Your task to perform on an android device: Open the phone app and click the voicemail tab. Image 0: 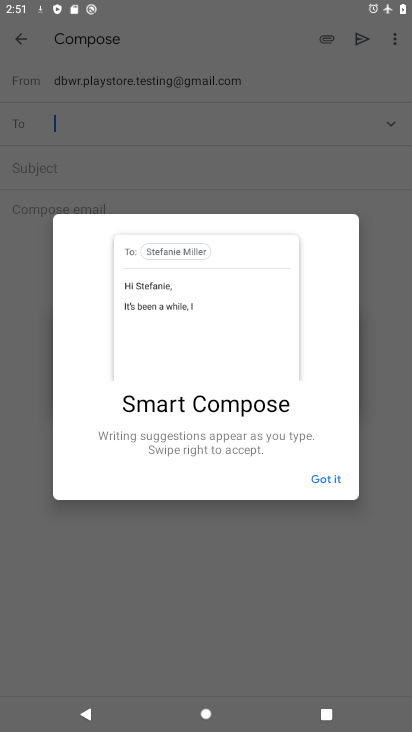
Step 0: press home button
Your task to perform on an android device: Open the phone app and click the voicemail tab. Image 1: 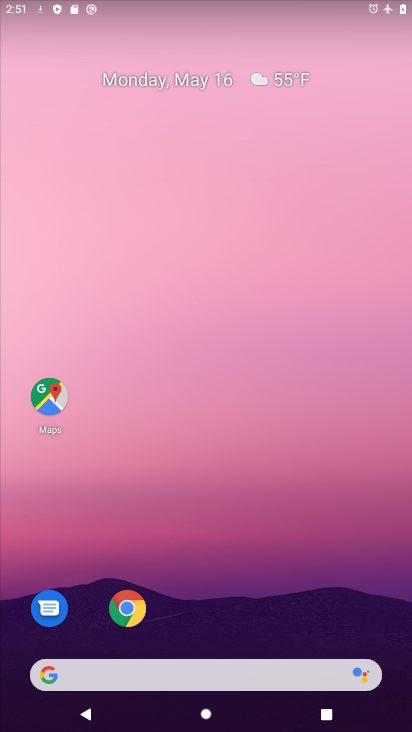
Step 1: drag from (220, 619) to (224, 160)
Your task to perform on an android device: Open the phone app and click the voicemail tab. Image 2: 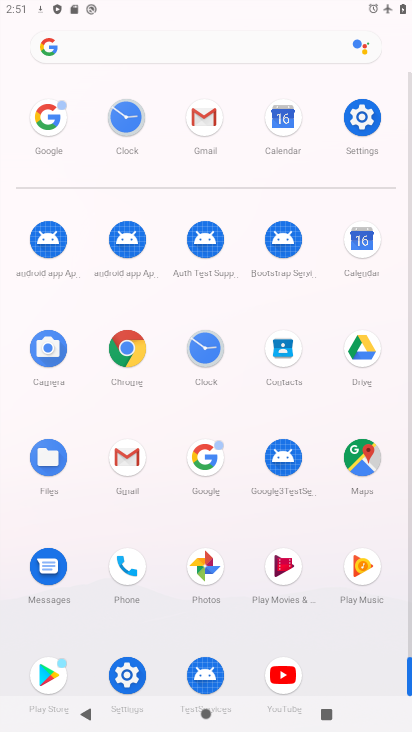
Step 2: click (136, 567)
Your task to perform on an android device: Open the phone app and click the voicemail tab. Image 3: 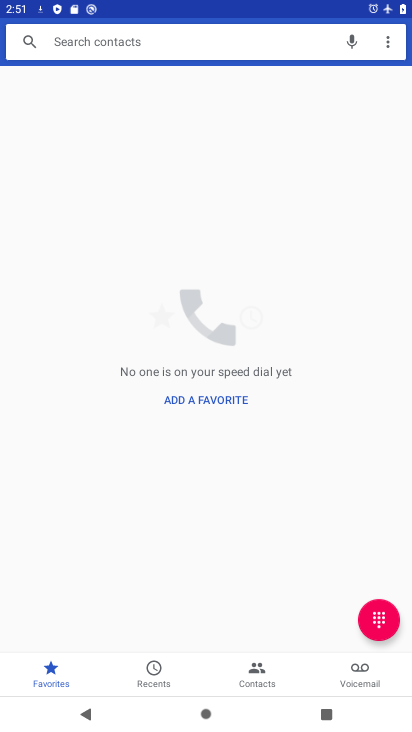
Step 3: click (354, 684)
Your task to perform on an android device: Open the phone app and click the voicemail tab. Image 4: 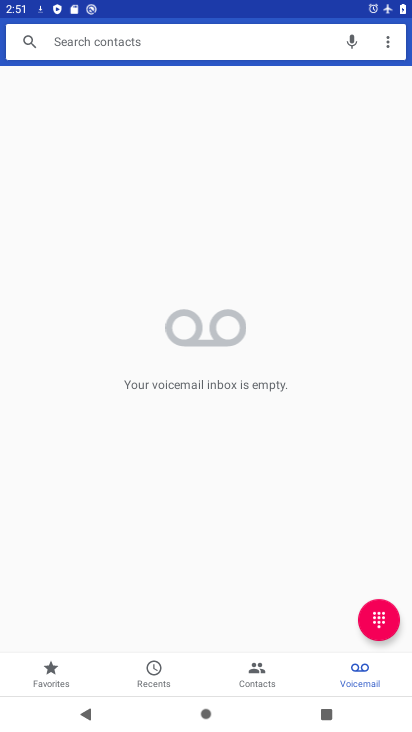
Step 4: task complete